Your task to perform on an android device: Open my contact list Image 0: 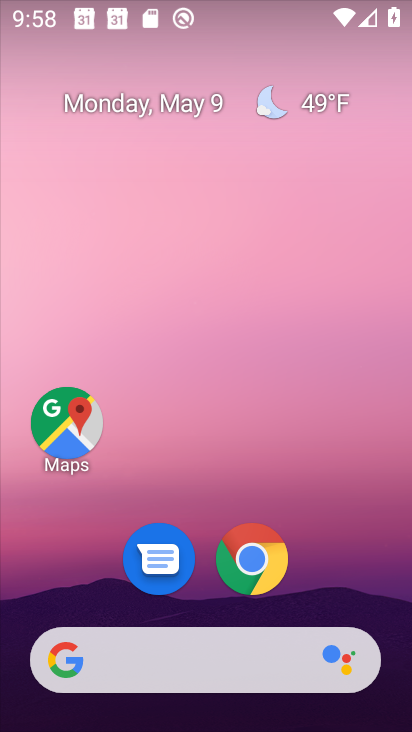
Step 0: drag from (233, 726) to (225, 139)
Your task to perform on an android device: Open my contact list Image 1: 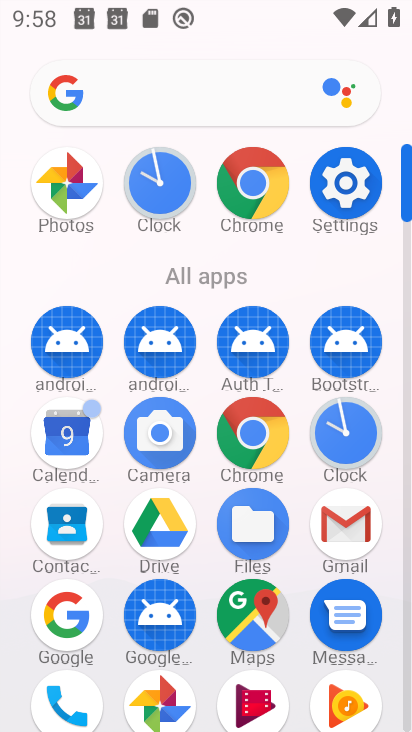
Step 1: drag from (205, 593) to (209, 253)
Your task to perform on an android device: Open my contact list Image 2: 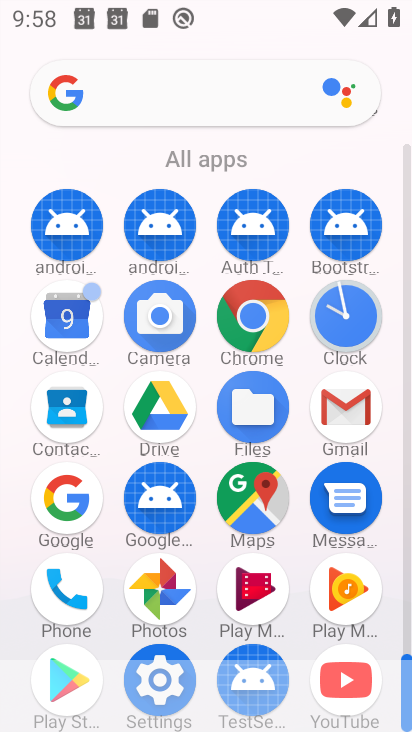
Step 2: click (67, 413)
Your task to perform on an android device: Open my contact list Image 3: 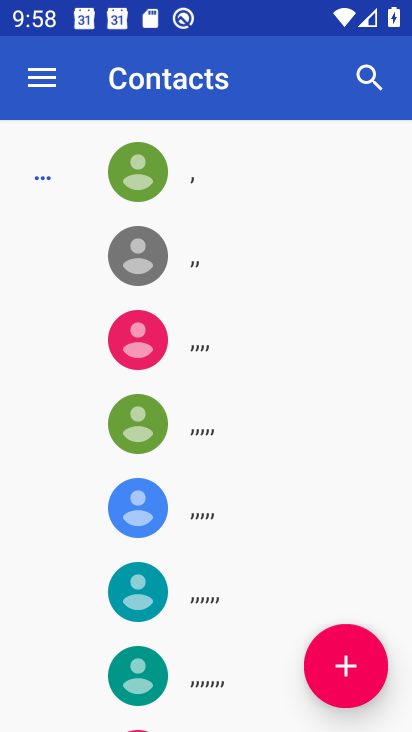
Step 3: task complete